Your task to perform on an android device: Open the map Image 0: 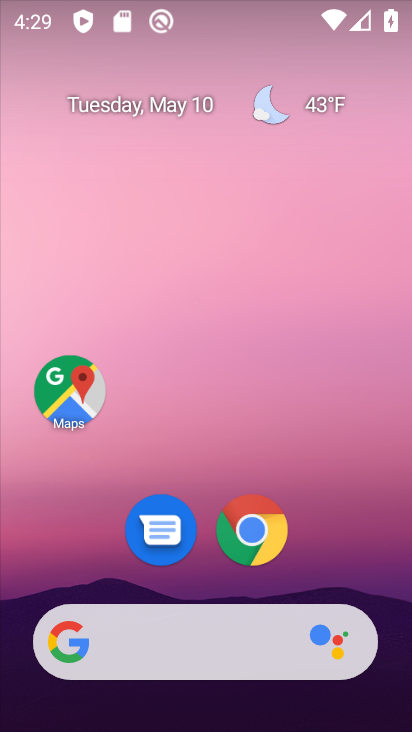
Step 0: drag from (310, 558) to (360, 172)
Your task to perform on an android device: Open the map Image 1: 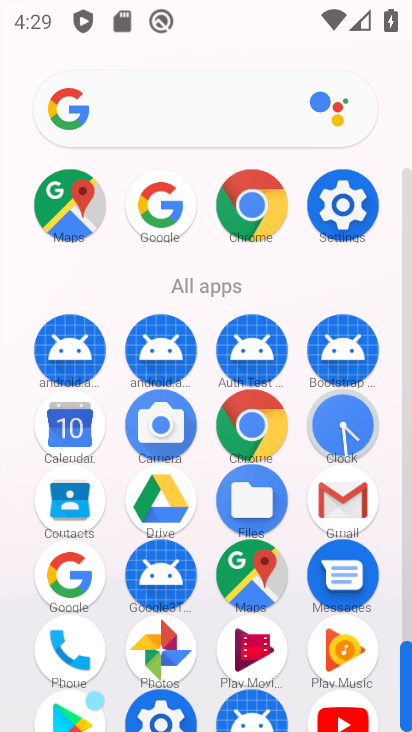
Step 1: click (64, 195)
Your task to perform on an android device: Open the map Image 2: 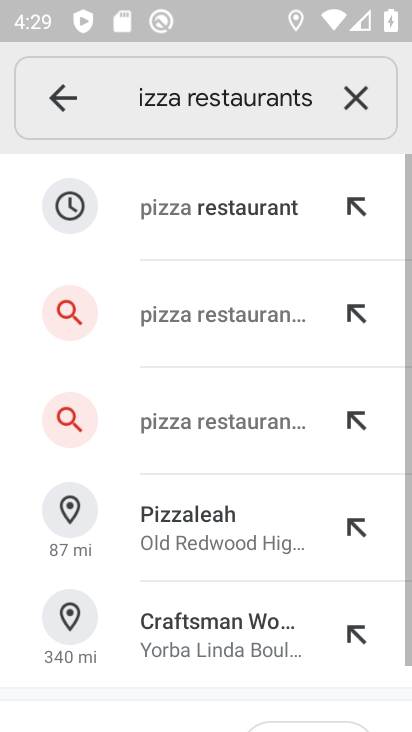
Step 2: click (382, 209)
Your task to perform on an android device: Open the map Image 3: 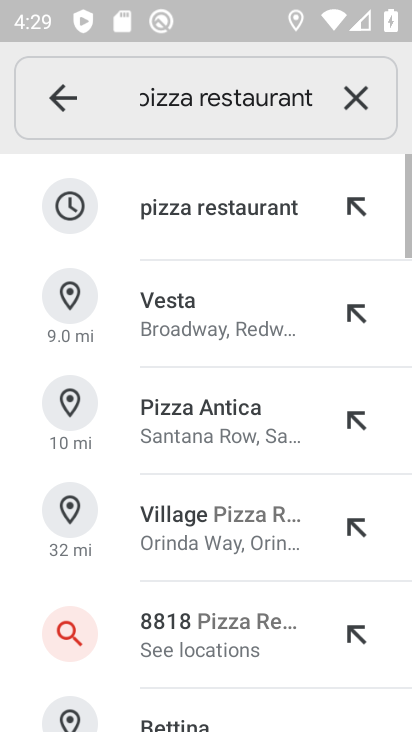
Step 3: task complete